Your task to perform on an android device: change notifications settings Image 0: 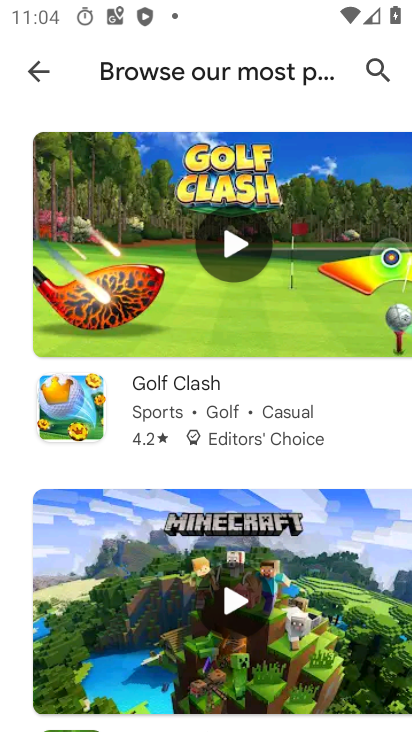
Step 0: press home button
Your task to perform on an android device: change notifications settings Image 1: 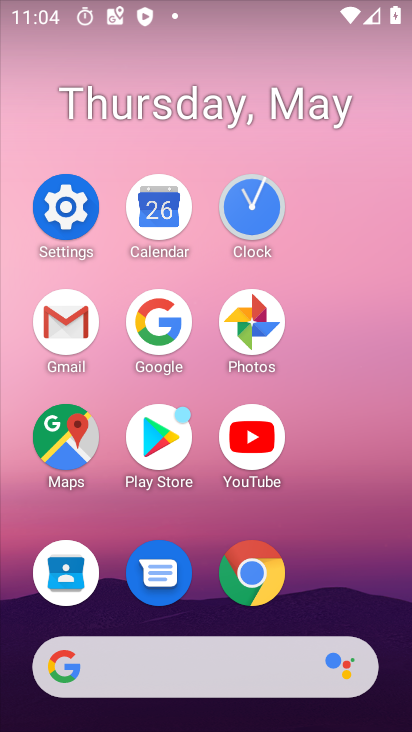
Step 1: click (55, 212)
Your task to perform on an android device: change notifications settings Image 2: 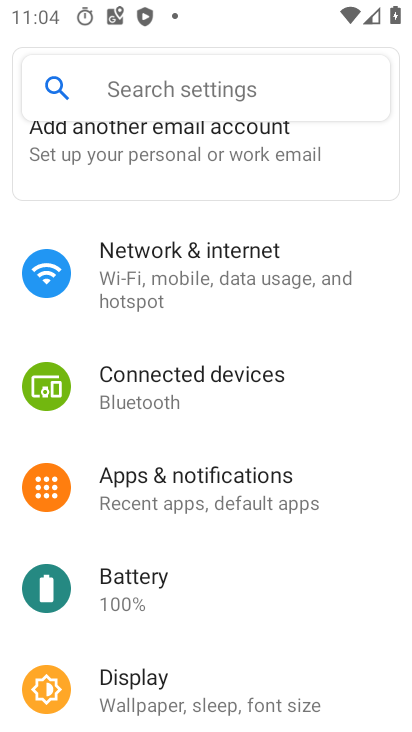
Step 2: click (239, 479)
Your task to perform on an android device: change notifications settings Image 3: 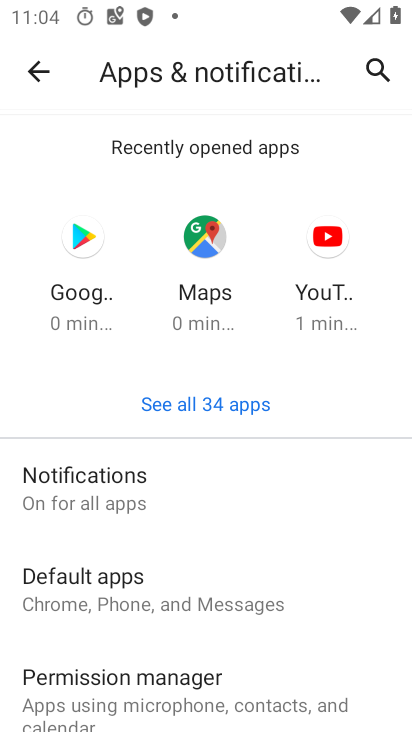
Step 3: task complete